Your task to perform on an android device: Go to Amazon Image 0: 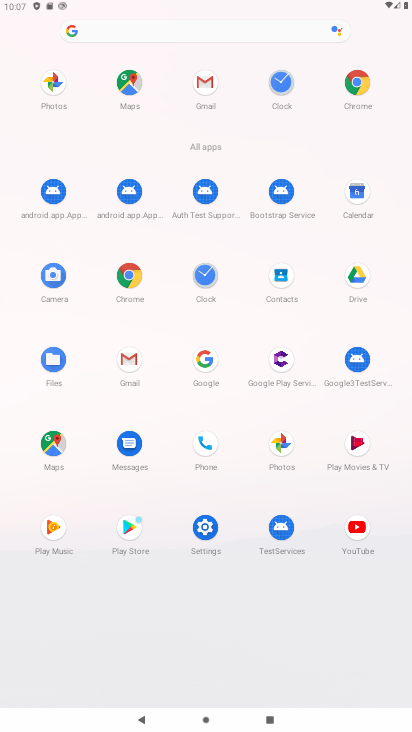
Step 0: press home button
Your task to perform on an android device: Go to Amazon Image 1: 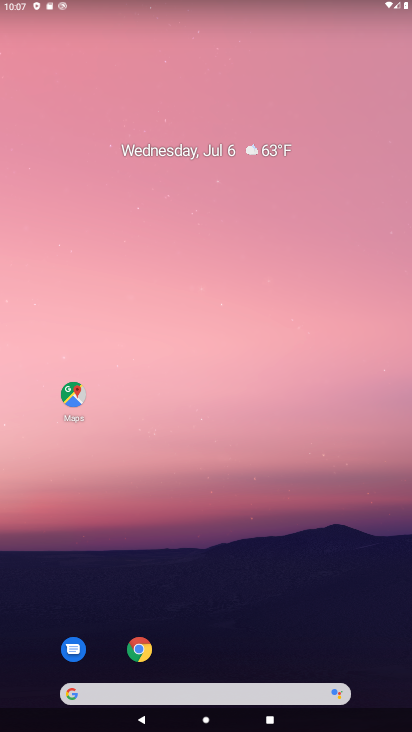
Step 1: click (183, 689)
Your task to perform on an android device: Go to Amazon Image 2: 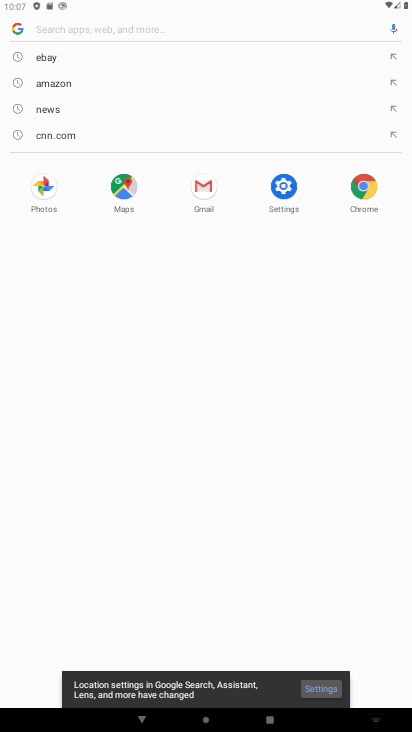
Step 2: click (41, 86)
Your task to perform on an android device: Go to Amazon Image 3: 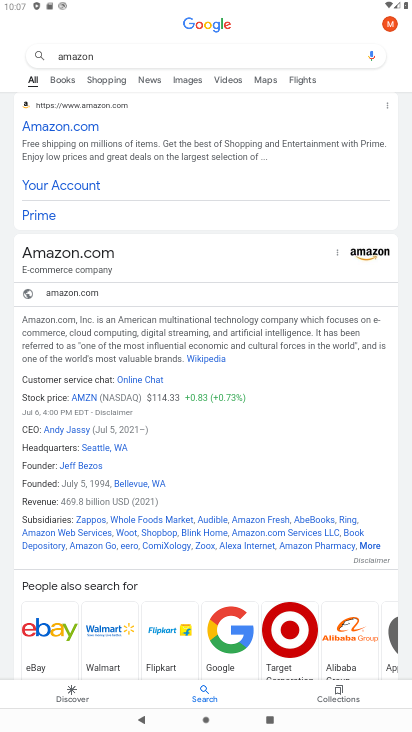
Step 3: click (190, 414)
Your task to perform on an android device: Go to Amazon Image 4: 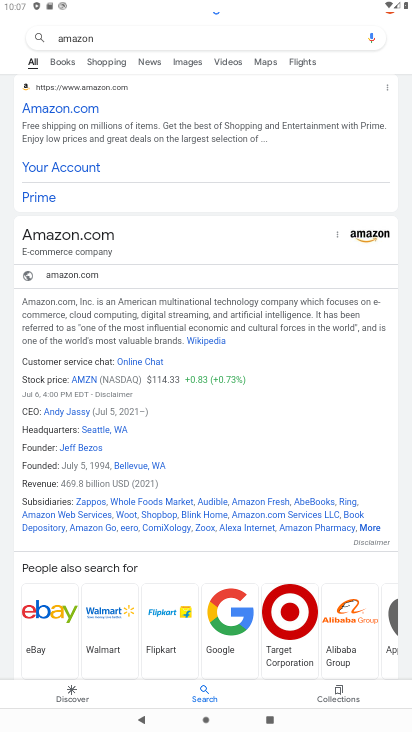
Step 4: click (48, 110)
Your task to perform on an android device: Go to Amazon Image 5: 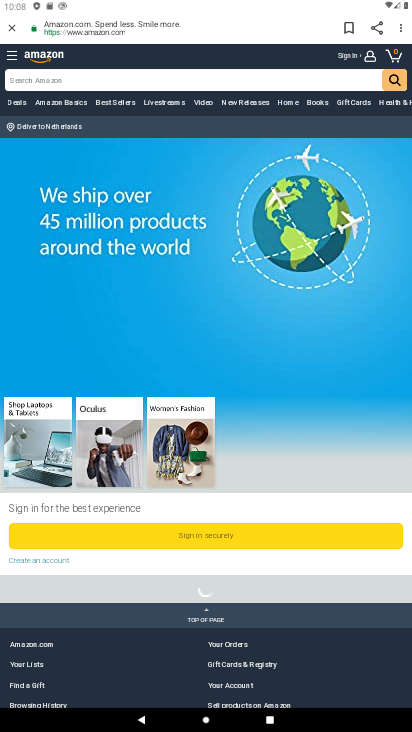
Step 5: task complete